Your task to perform on an android device: Open the calendar and show me this week's events? Image 0: 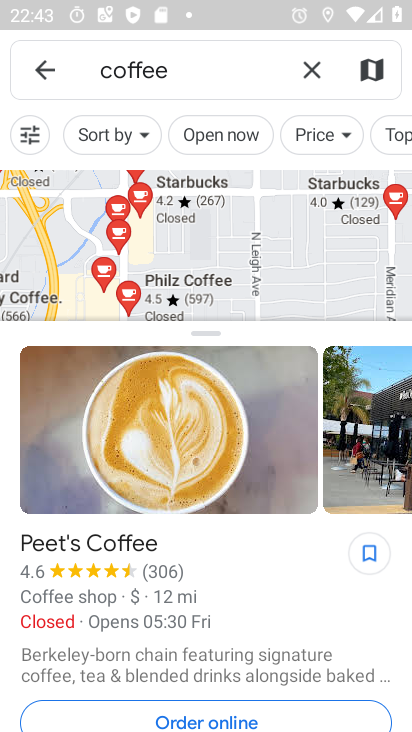
Step 0: press home button
Your task to perform on an android device: Open the calendar and show me this week's events? Image 1: 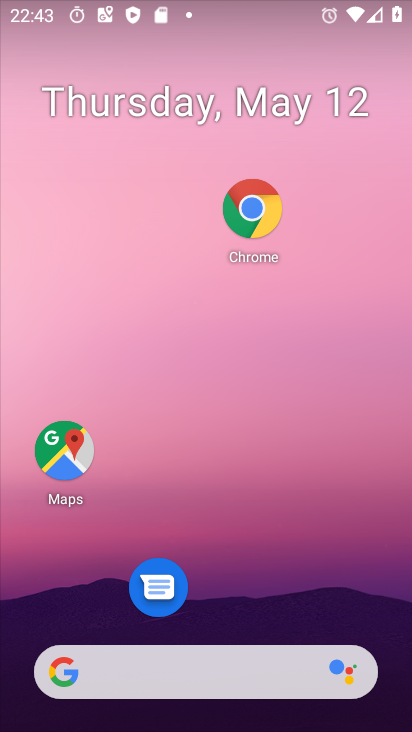
Step 1: drag from (258, 539) to (309, 13)
Your task to perform on an android device: Open the calendar and show me this week's events? Image 2: 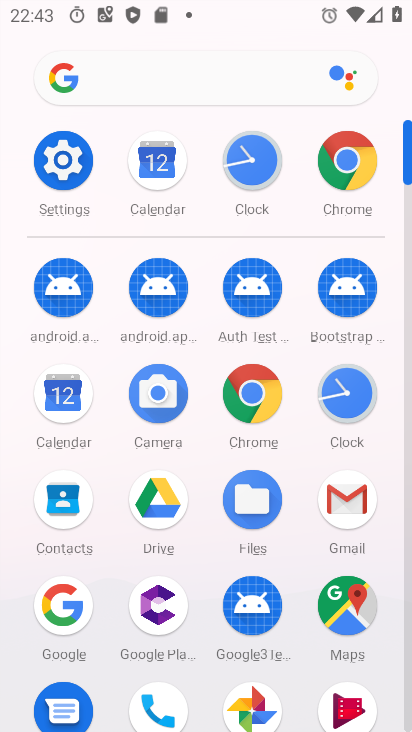
Step 2: click (58, 390)
Your task to perform on an android device: Open the calendar and show me this week's events? Image 3: 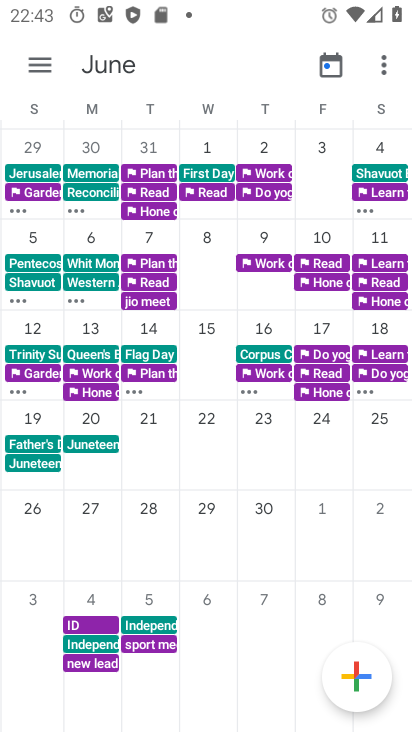
Step 3: task complete